Your task to perform on an android device: turn on sleep mode Image 0: 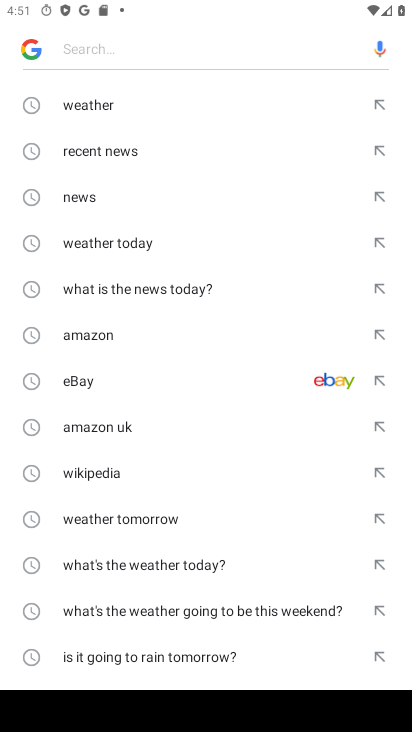
Step 0: press home button
Your task to perform on an android device: turn on sleep mode Image 1: 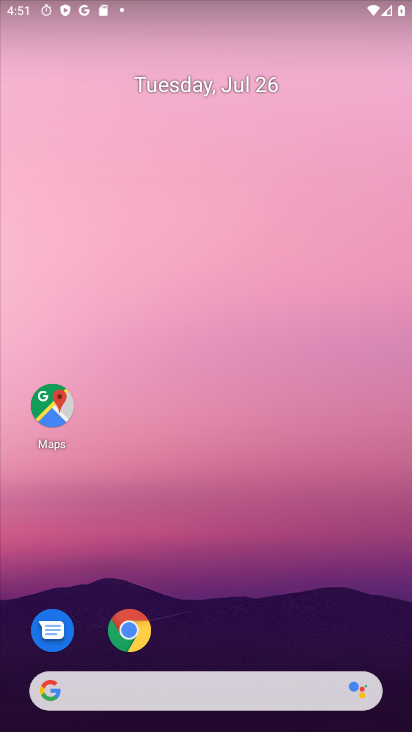
Step 1: drag from (343, 567) to (266, 48)
Your task to perform on an android device: turn on sleep mode Image 2: 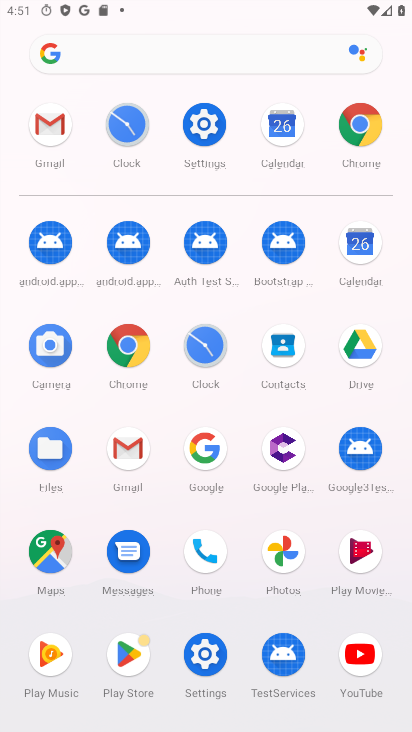
Step 2: click (205, 118)
Your task to perform on an android device: turn on sleep mode Image 3: 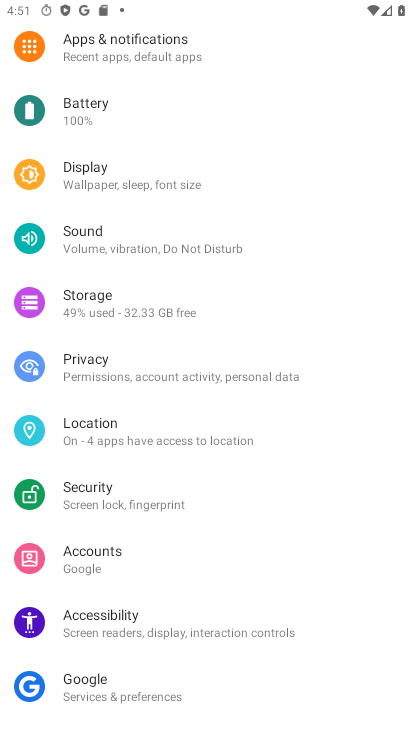
Step 3: click (139, 186)
Your task to perform on an android device: turn on sleep mode Image 4: 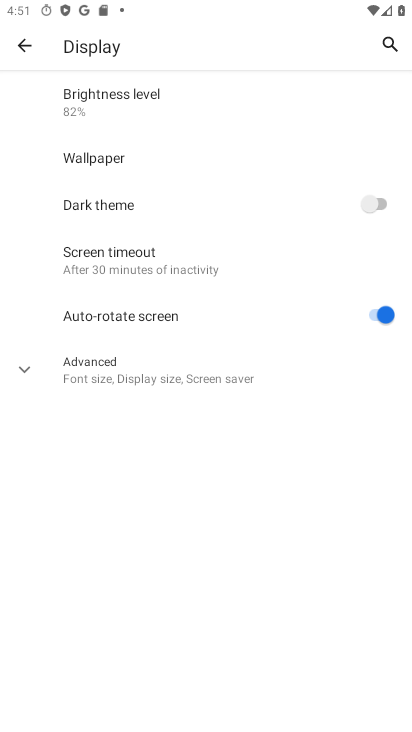
Step 4: click (129, 256)
Your task to perform on an android device: turn on sleep mode Image 5: 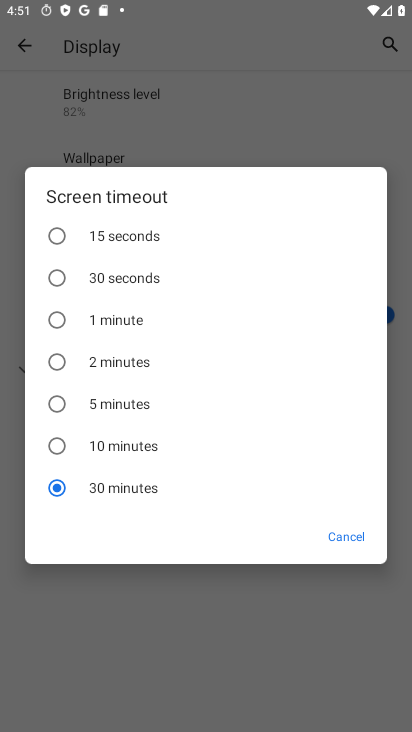
Step 5: task complete